Your task to perform on an android device: Open Google Maps and go to "Timeline" Image 0: 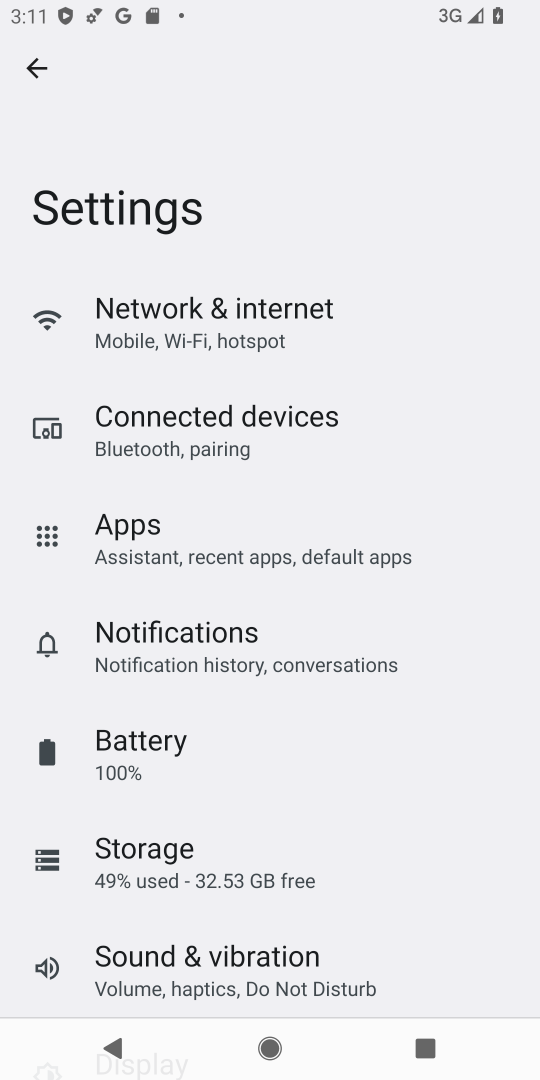
Step 0: press back button
Your task to perform on an android device: Open Google Maps and go to "Timeline" Image 1: 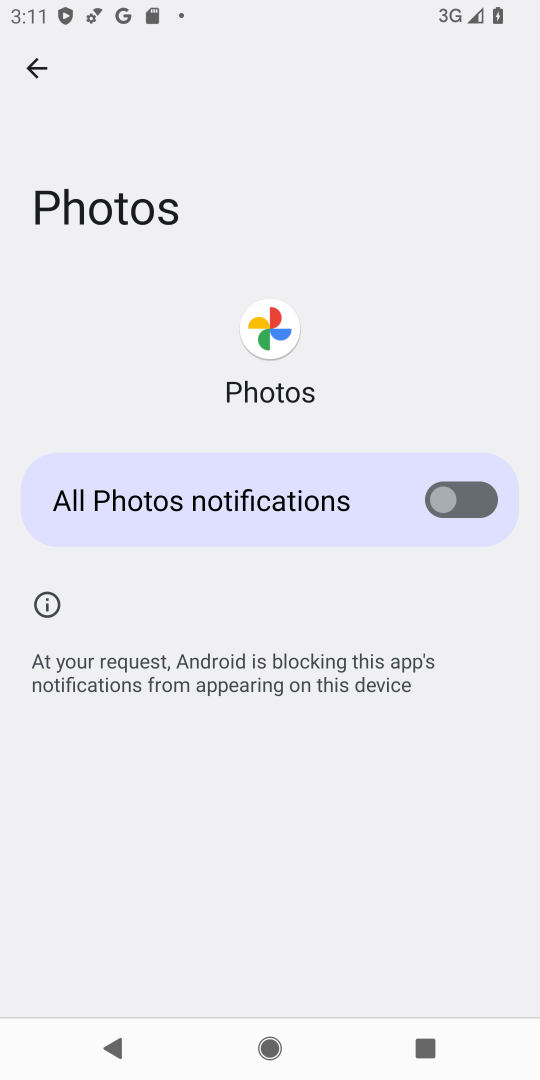
Step 1: press back button
Your task to perform on an android device: Open Google Maps and go to "Timeline" Image 2: 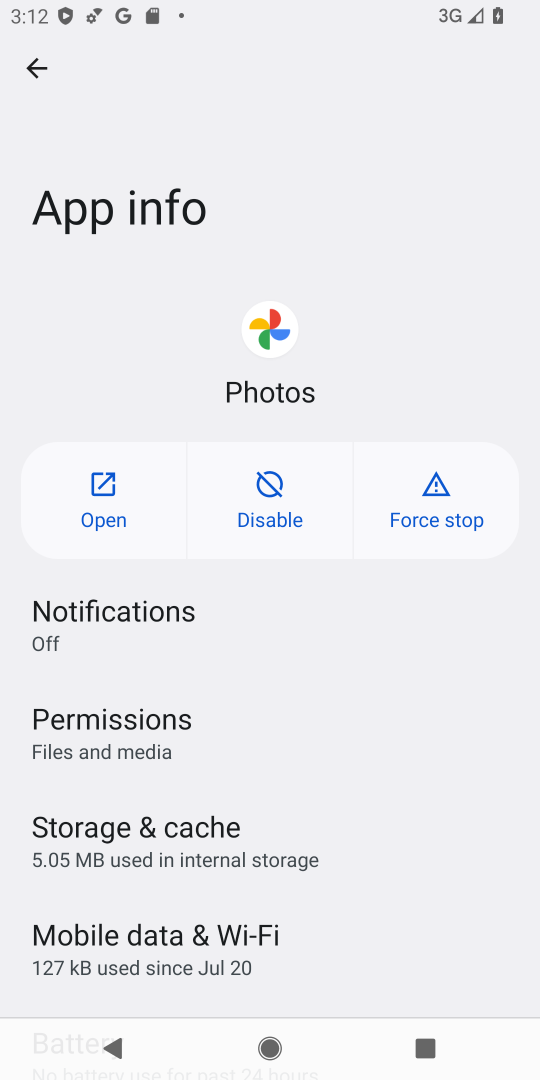
Step 2: press back button
Your task to perform on an android device: Open Google Maps and go to "Timeline" Image 3: 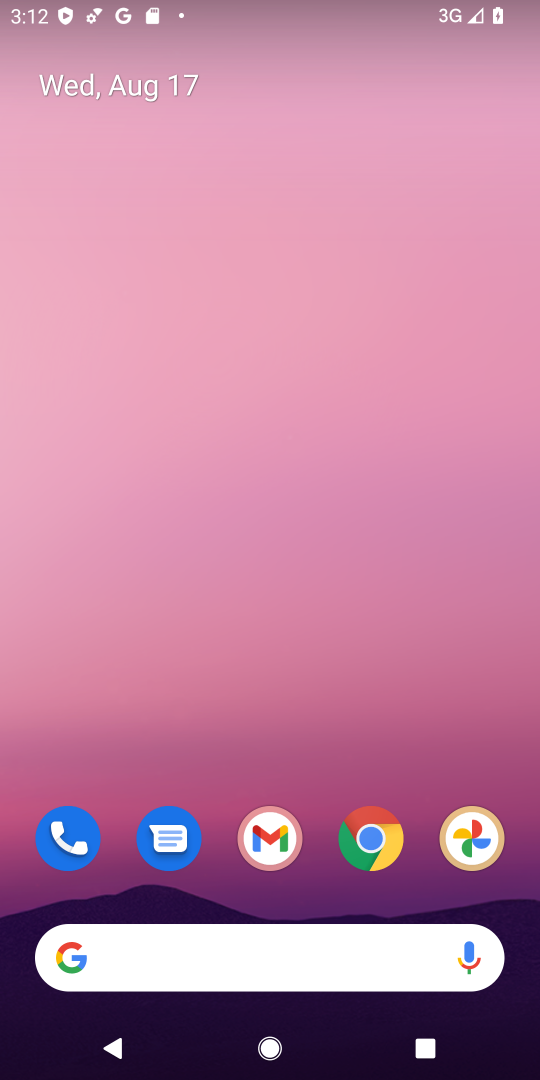
Step 3: drag from (306, 575) to (296, 39)
Your task to perform on an android device: Open Google Maps and go to "Timeline" Image 4: 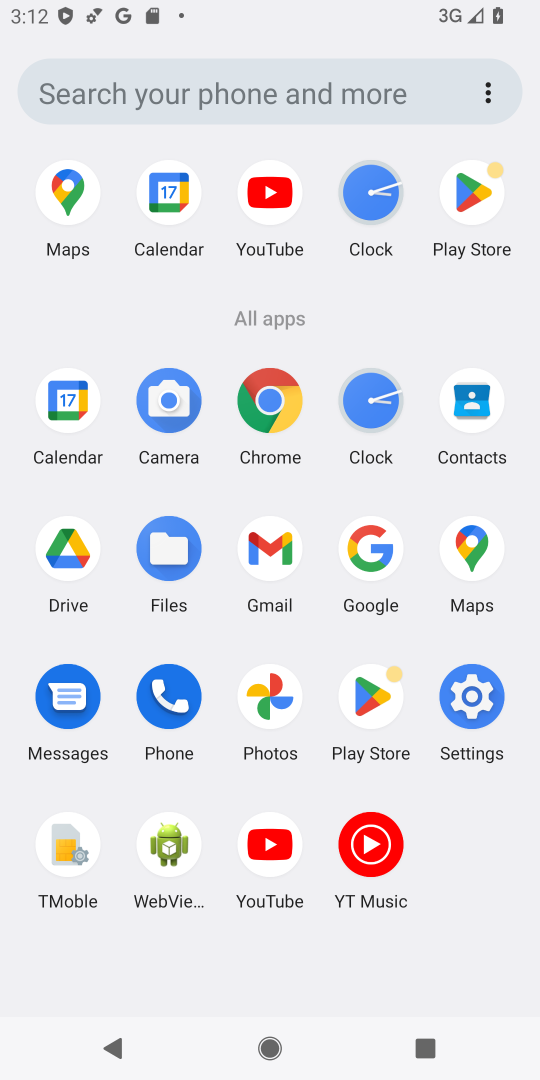
Step 4: click (60, 201)
Your task to perform on an android device: Open Google Maps and go to "Timeline" Image 5: 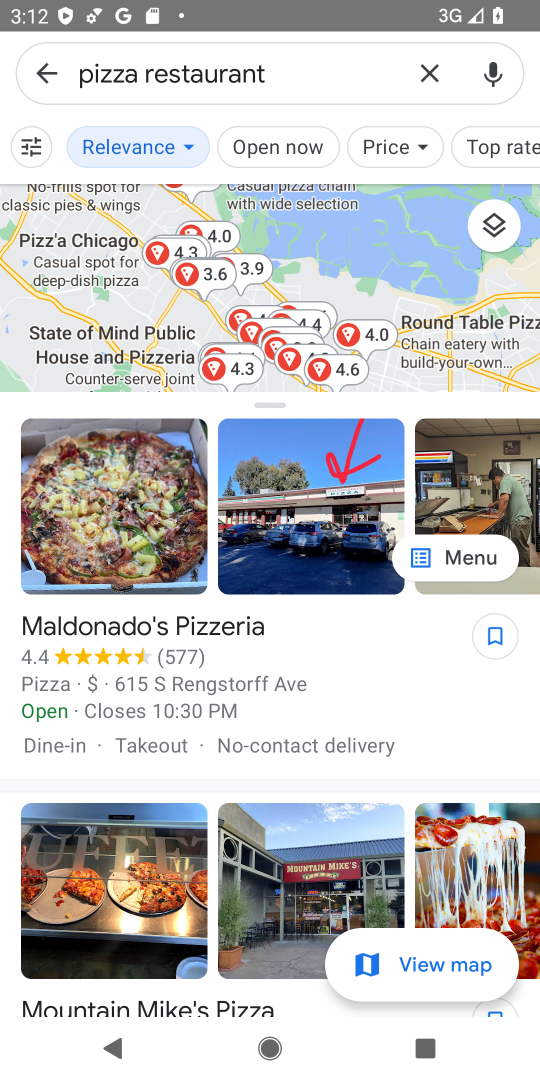
Step 5: click (63, 68)
Your task to perform on an android device: Open Google Maps and go to "Timeline" Image 6: 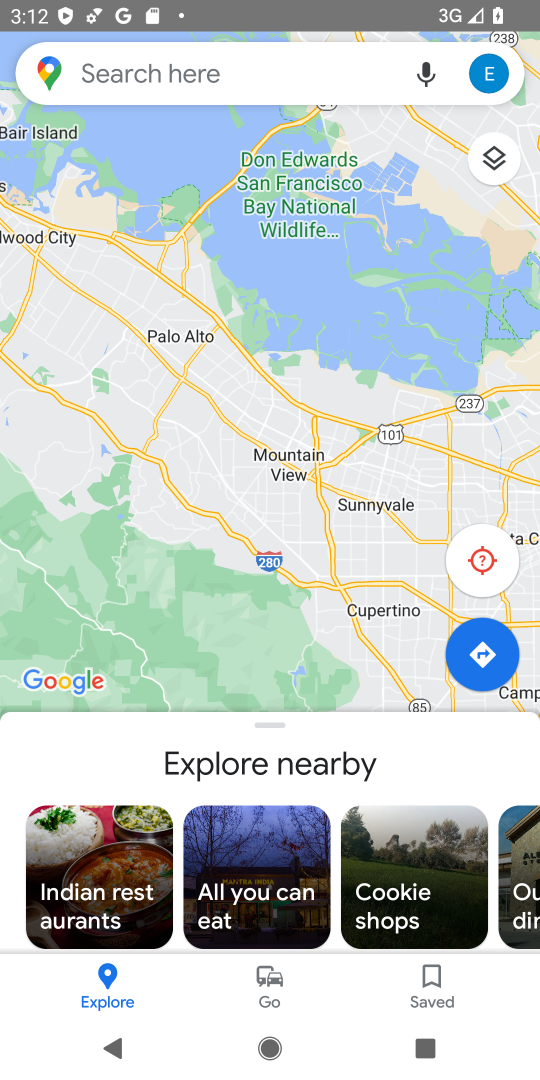
Step 6: click (502, 82)
Your task to perform on an android device: Open Google Maps and go to "Timeline" Image 7: 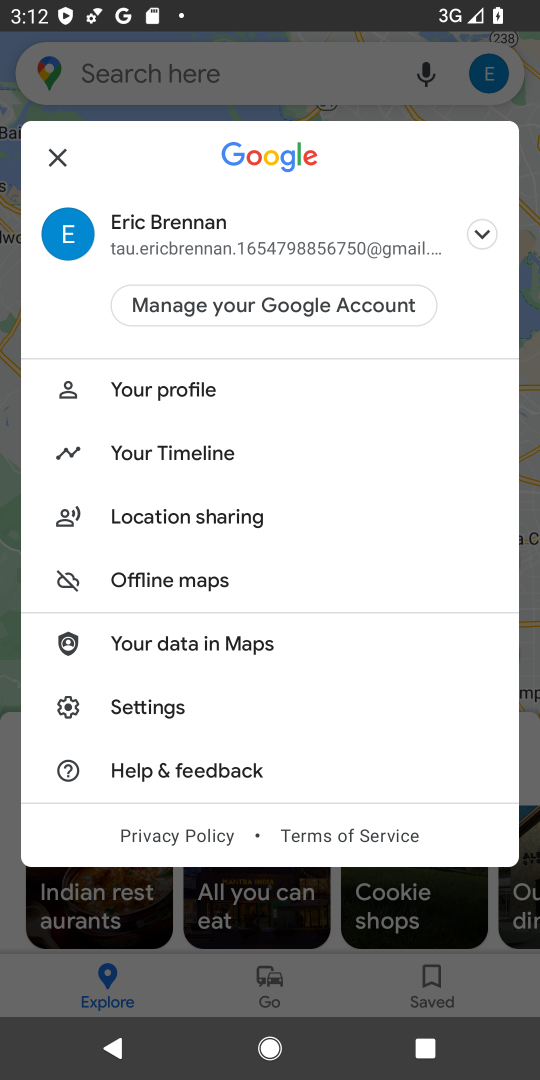
Step 7: click (204, 464)
Your task to perform on an android device: Open Google Maps and go to "Timeline" Image 8: 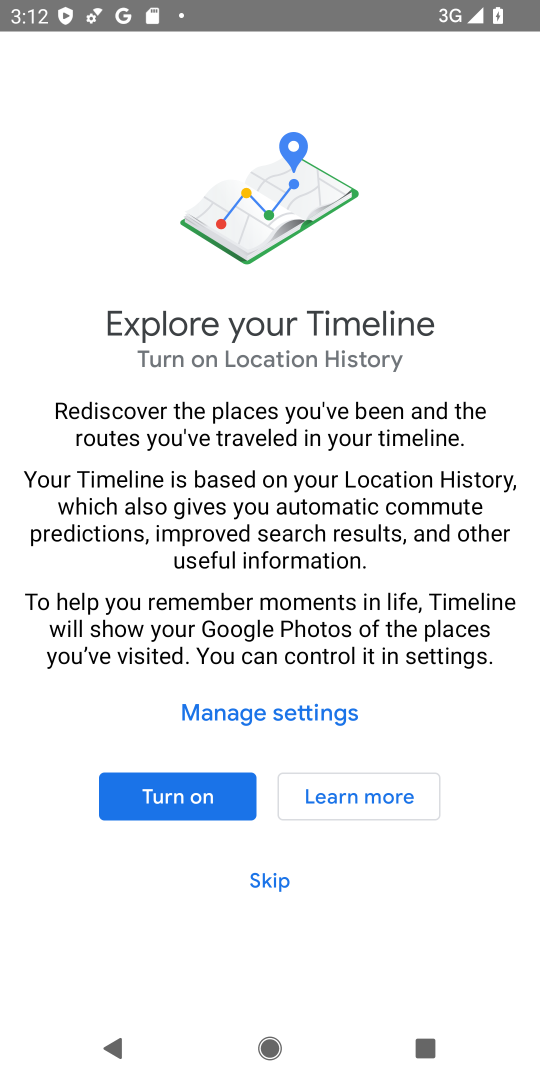
Step 8: click (250, 879)
Your task to perform on an android device: Open Google Maps and go to "Timeline" Image 9: 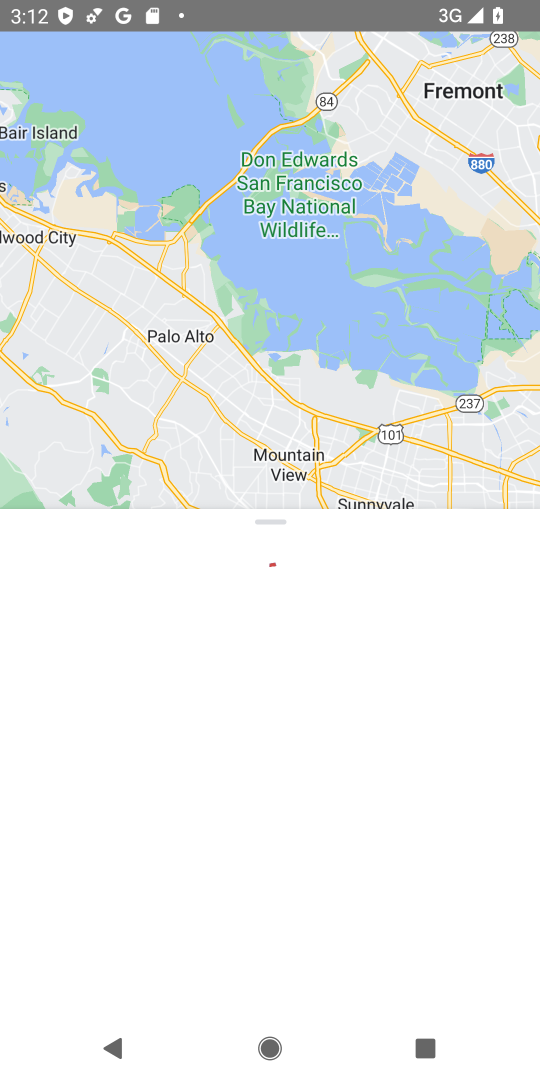
Step 9: task complete